Your task to perform on an android device: Go to battery settings Image 0: 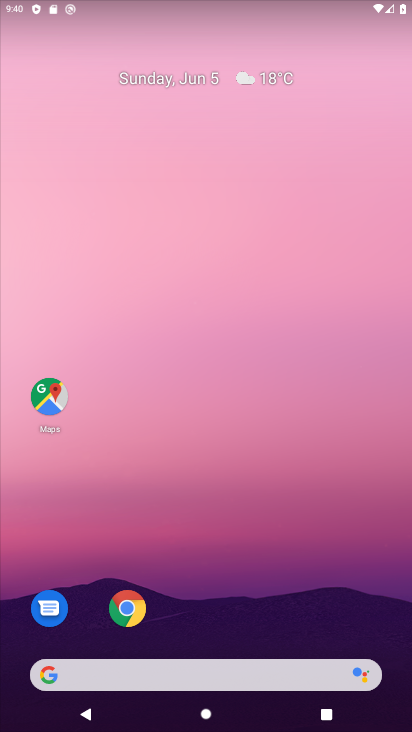
Step 0: drag from (268, 669) to (239, 129)
Your task to perform on an android device: Go to battery settings Image 1: 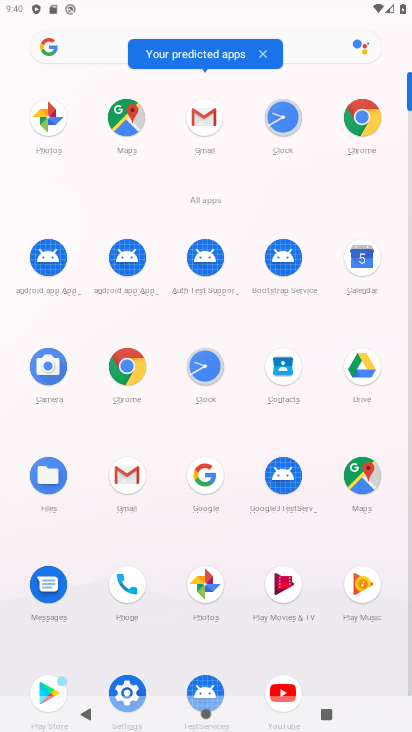
Step 1: click (126, 672)
Your task to perform on an android device: Go to battery settings Image 2: 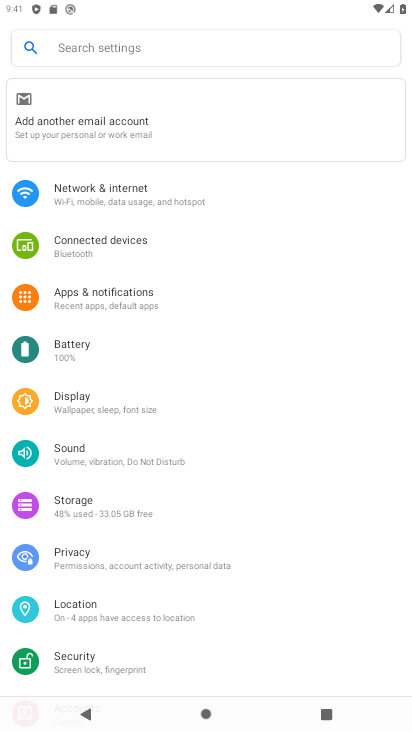
Step 2: click (82, 353)
Your task to perform on an android device: Go to battery settings Image 3: 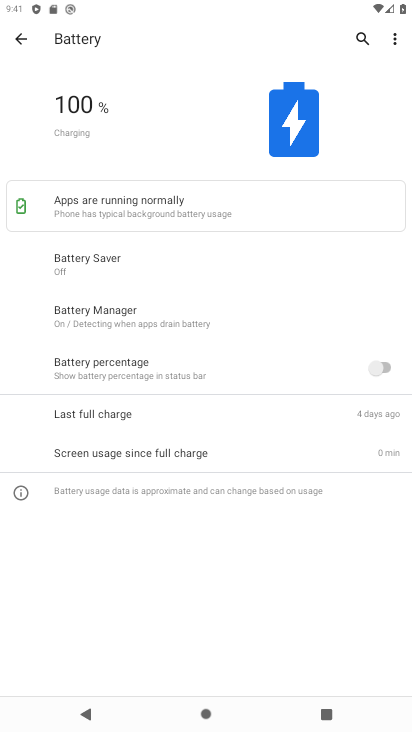
Step 3: task complete